Your task to perform on an android device: delete browsing data in the chrome app Image 0: 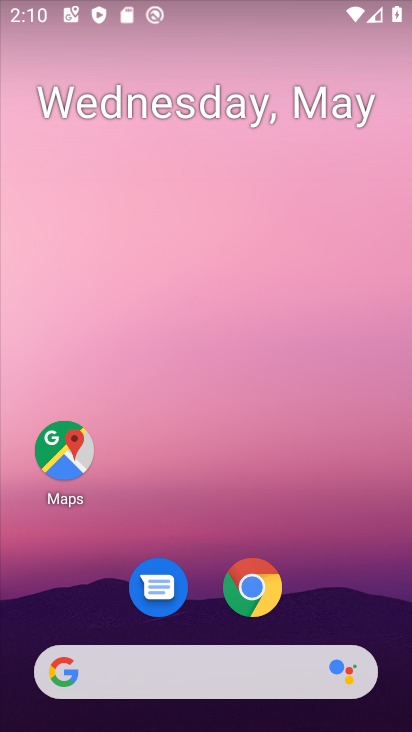
Step 0: click (240, 568)
Your task to perform on an android device: delete browsing data in the chrome app Image 1: 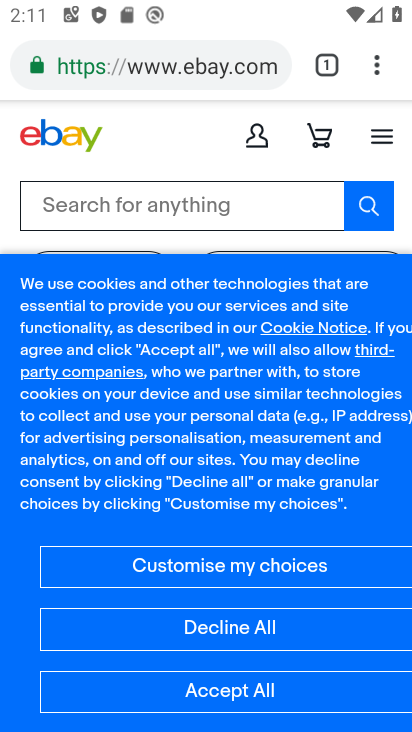
Step 1: click (367, 64)
Your task to perform on an android device: delete browsing data in the chrome app Image 2: 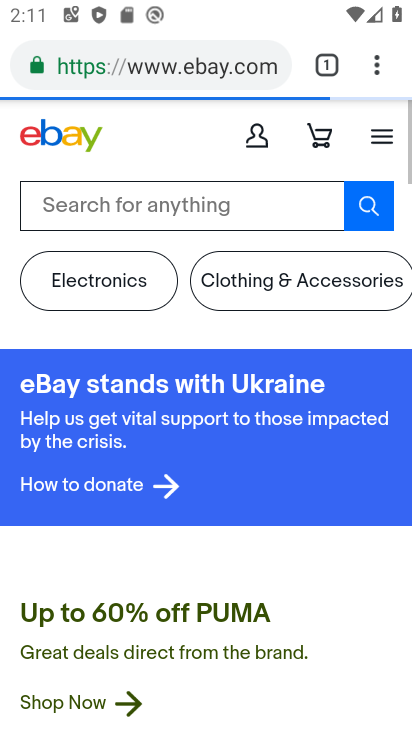
Step 2: click (367, 64)
Your task to perform on an android device: delete browsing data in the chrome app Image 3: 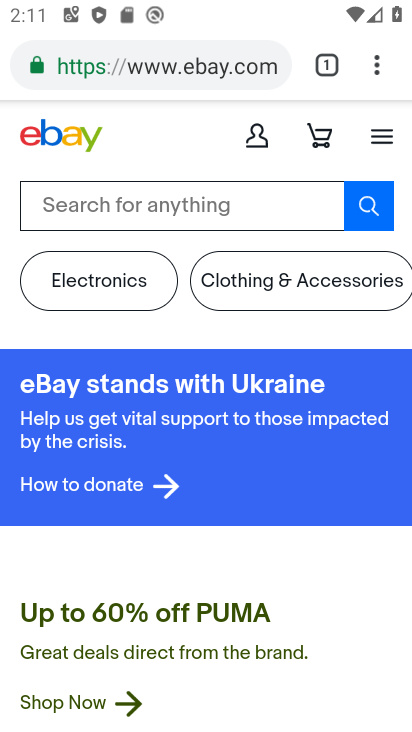
Step 3: click (367, 64)
Your task to perform on an android device: delete browsing data in the chrome app Image 4: 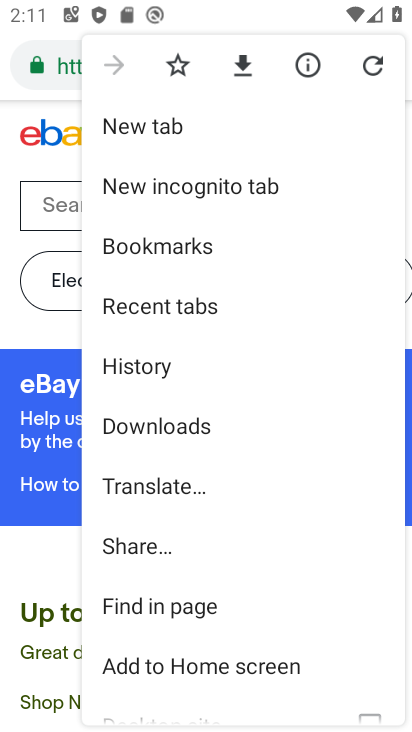
Step 4: click (181, 362)
Your task to perform on an android device: delete browsing data in the chrome app Image 5: 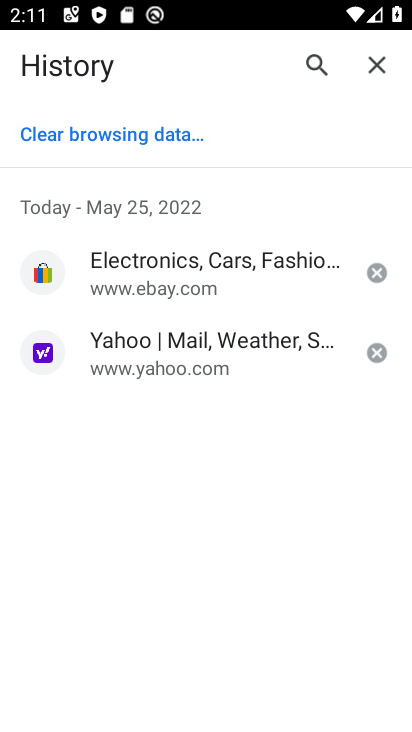
Step 5: click (108, 122)
Your task to perform on an android device: delete browsing data in the chrome app Image 6: 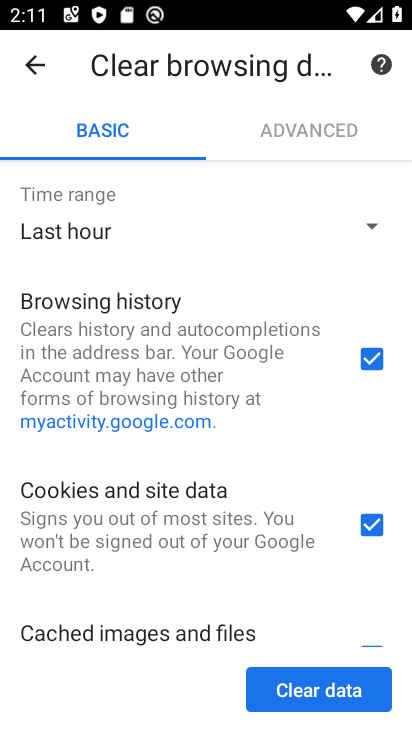
Step 6: click (324, 213)
Your task to perform on an android device: delete browsing data in the chrome app Image 7: 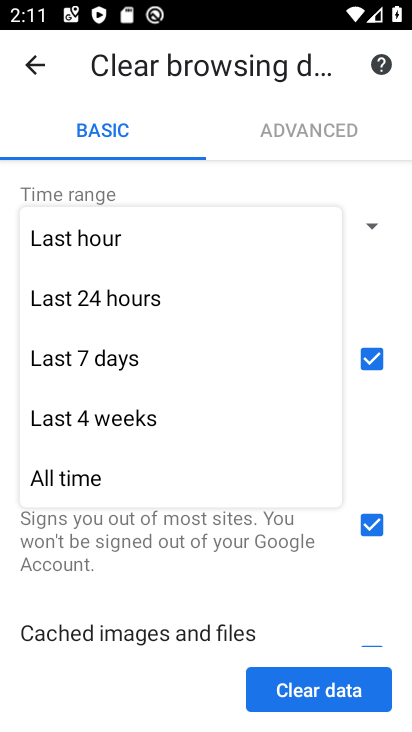
Step 7: click (84, 469)
Your task to perform on an android device: delete browsing data in the chrome app Image 8: 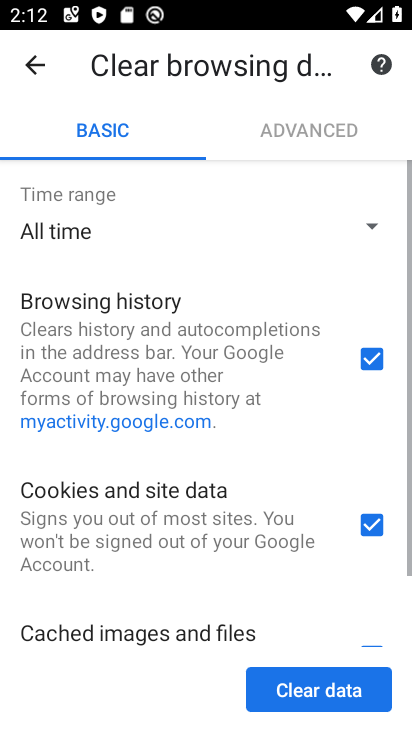
Step 8: click (286, 698)
Your task to perform on an android device: delete browsing data in the chrome app Image 9: 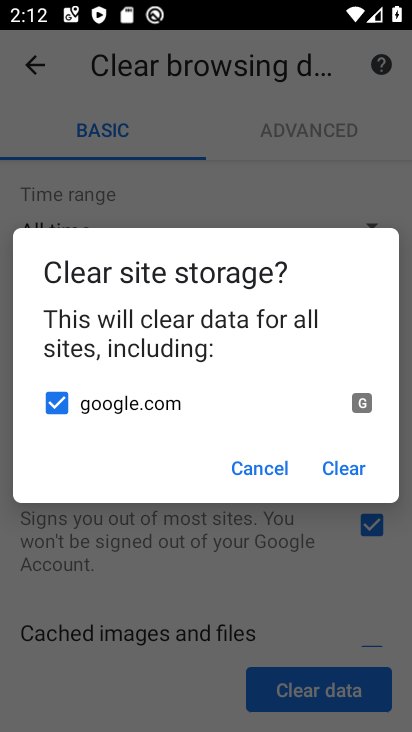
Step 9: click (336, 479)
Your task to perform on an android device: delete browsing data in the chrome app Image 10: 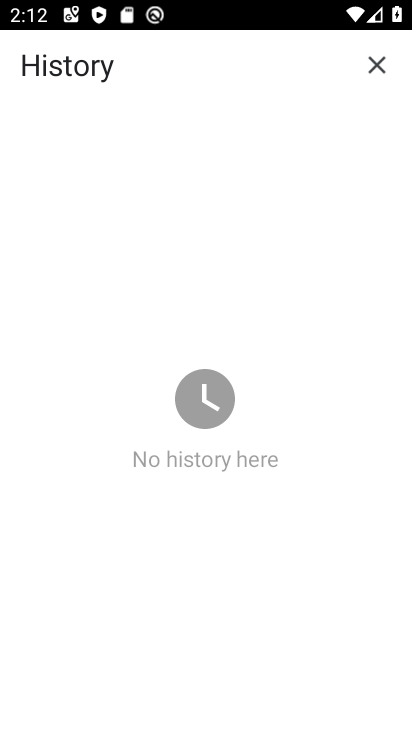
Step 10: task complete